Your task to perform on an android device: Open the map Image 0: 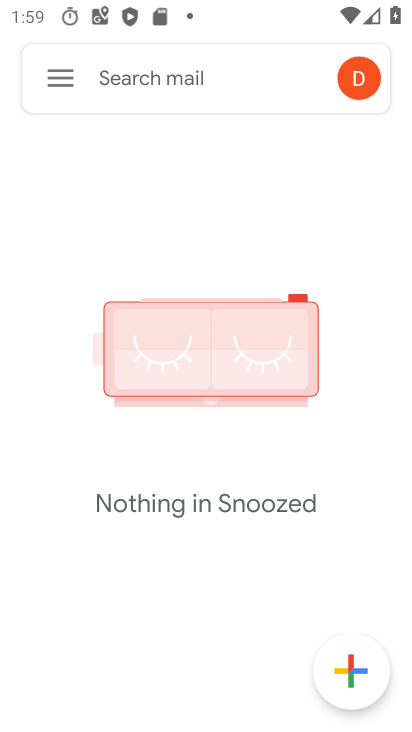
Step 0: press home button
Your task to perform on an android device: Open the map Image 1: 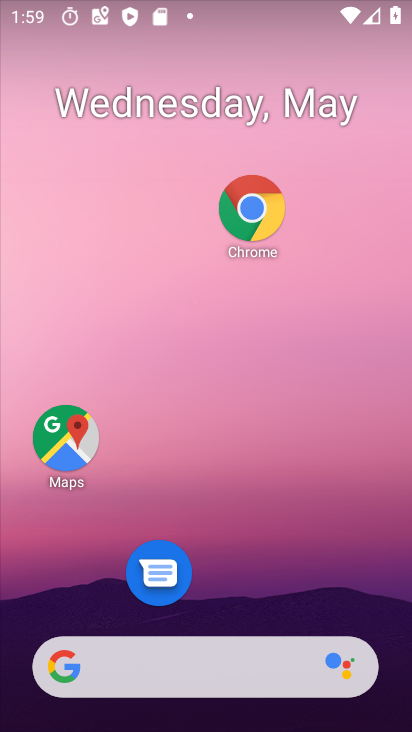
Step 1: click (54, 426)
Your task to perform on an android device: Open the map Image 2: 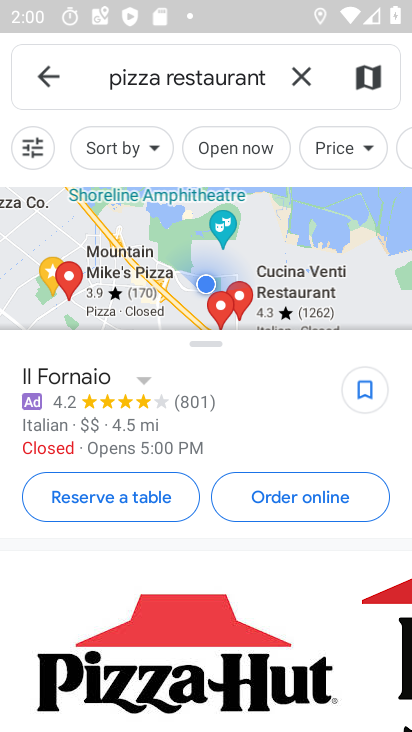
Step 2: task complete